Your task to perform on an android device: turn pop-ups off in chrome Image 0: 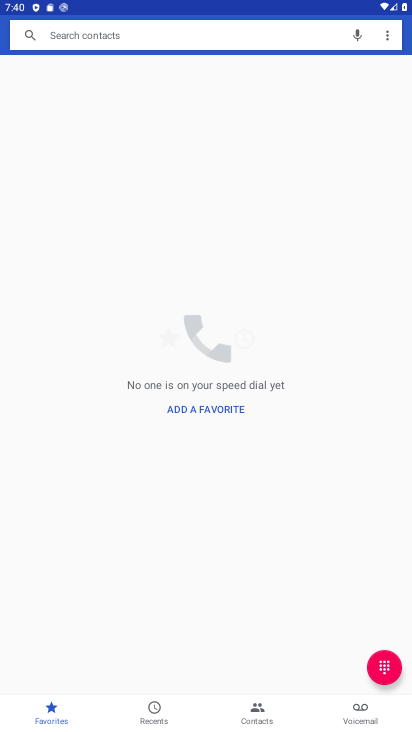
Step 0: press home button
Your task to perform on an android device: turn pop-ups off in chrome Image 1: 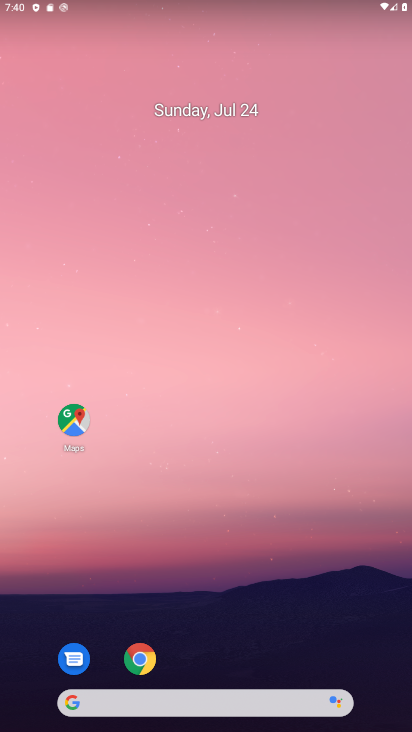
Step 1: click (129, 659)
Your task to perform on an android device: turn pop-ups off in chrome Image 2: 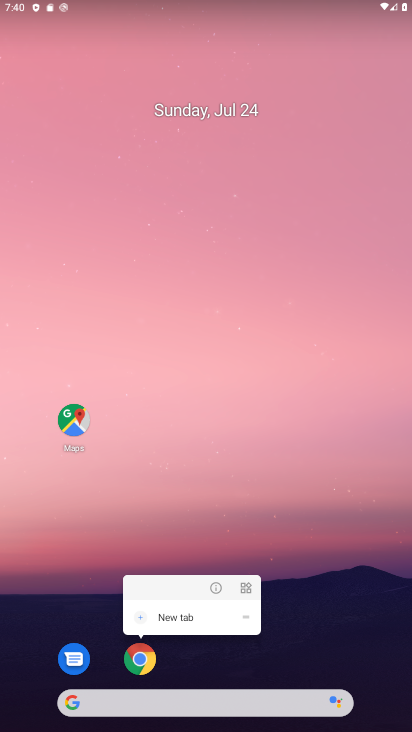
Step 2: click (139, 661)
Your task to perform on an android device: turn pop-ups off in chrome Image 3: 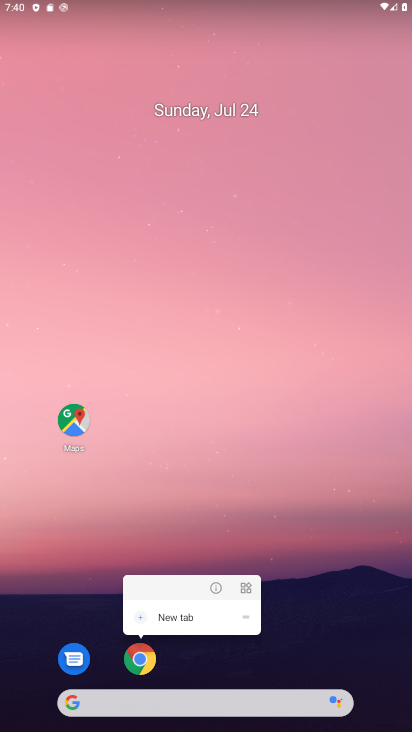
Step 3: click (132, 662)
Your task to perform on an android device: turn pop-ups off in chrome Image 4: 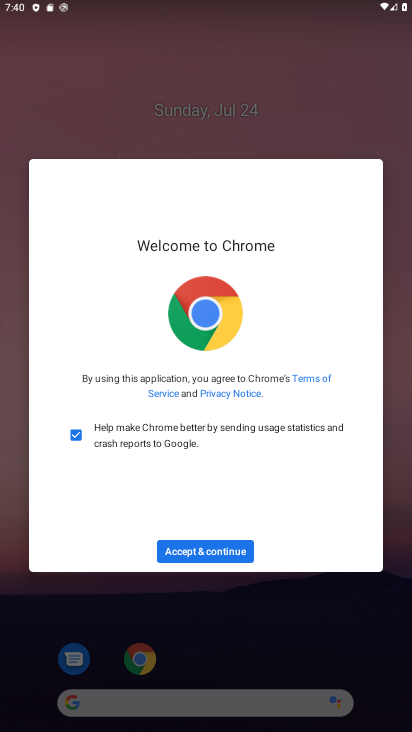
Step 4: click (229, 557)
Your task to perform on an android device: turn pop-ups off in chrome Image 5: 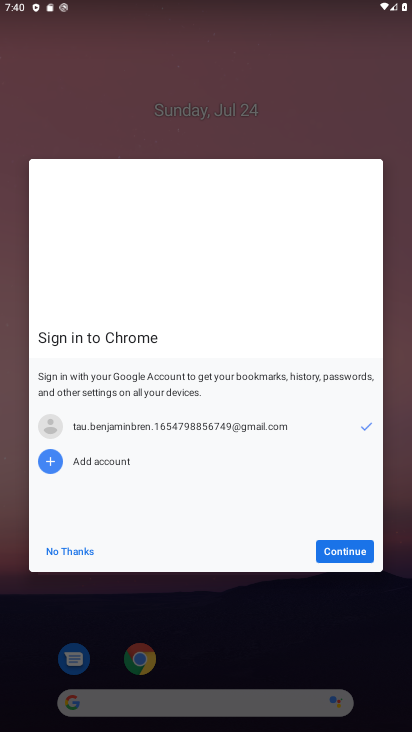
Step 5: click (346, 546)
Your task to perform on an android device: turn pop-ups off in chrome Image 6: 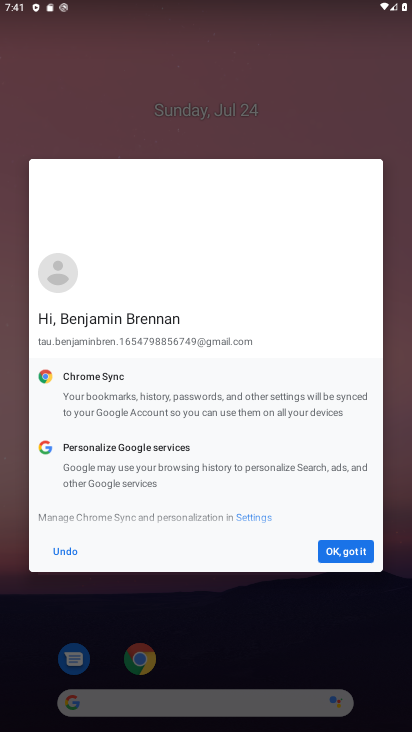
Step 6: click (353, 552)
Your task to perform on an android device: turn pop-ups off in chrome Image 7: 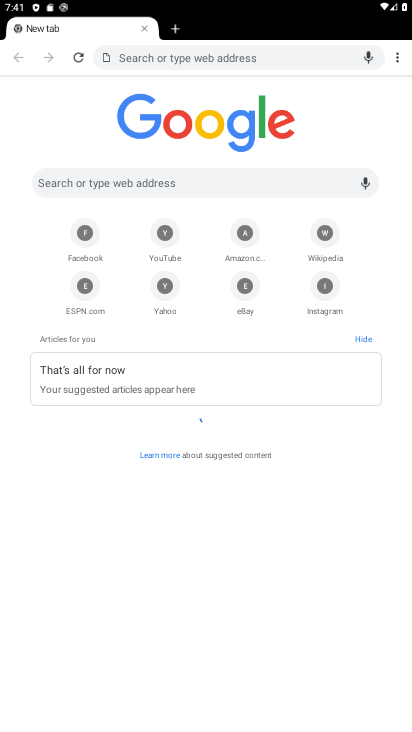
Step 7: click (398, 52)
Your task to perform on an android device: turn pop-ups off in chrome Image 8: 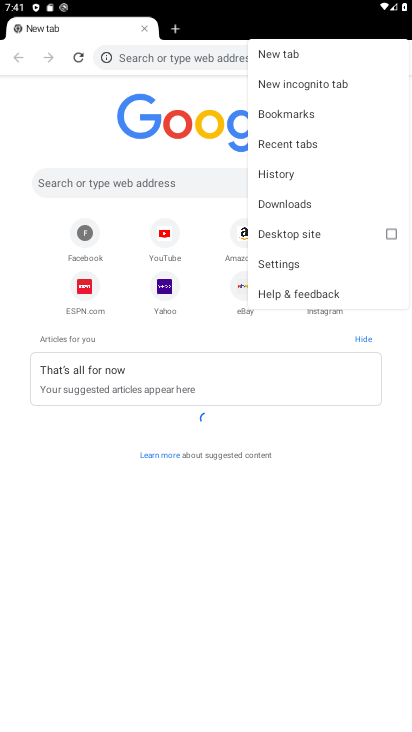
Step 8: click (322, 260)
Your task to perform on an android device: turn pop-ups off in chrome Image 9: 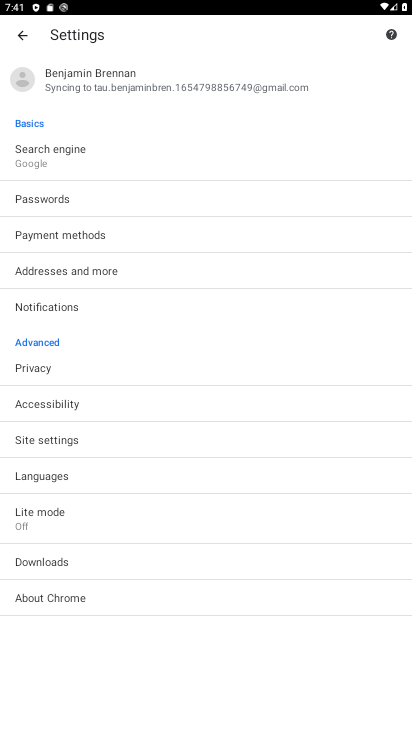
Step 9: click (46, 441)
Your task to perform on an android device: turn pop-ups off in chrome Image 10: 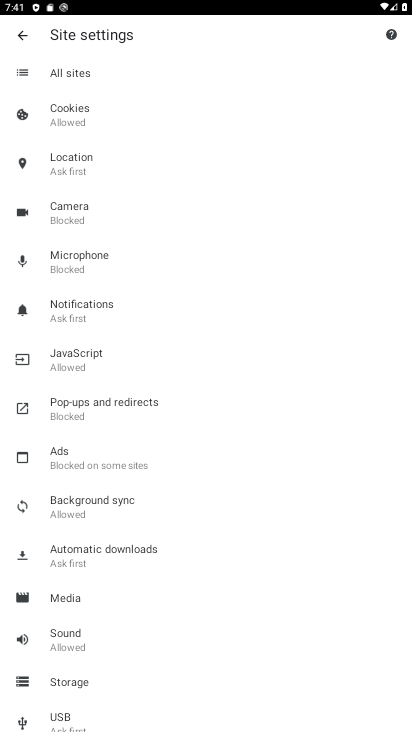
Step 10: drag from (178, 656) to (182, 289)
Your task to perform on an android device: turn pop-ups off in chrome Image 11: 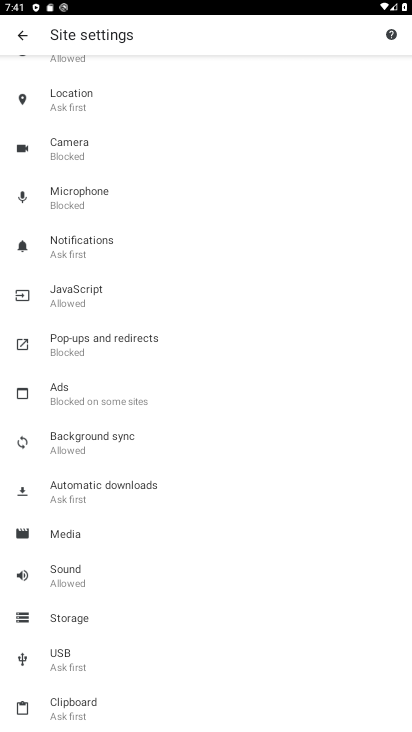
Step 11: click (173, 347)
Your task to perform on an android device: turn pop-ups off in chrome Image 12: 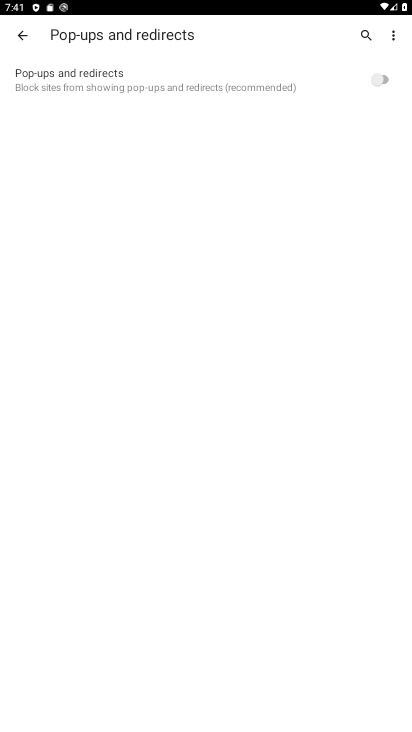
Step 12: task complete